Your task to perform on an android device: turn notification dots on Image 0: 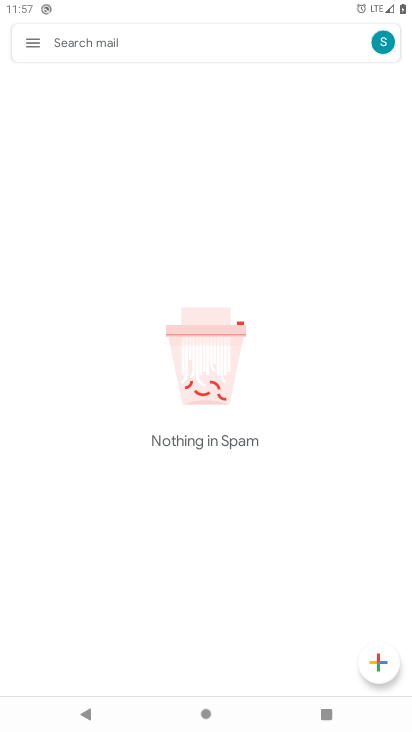
Step 0: press home button
Your task to perform on an android device: turn notification dots on Image 1: 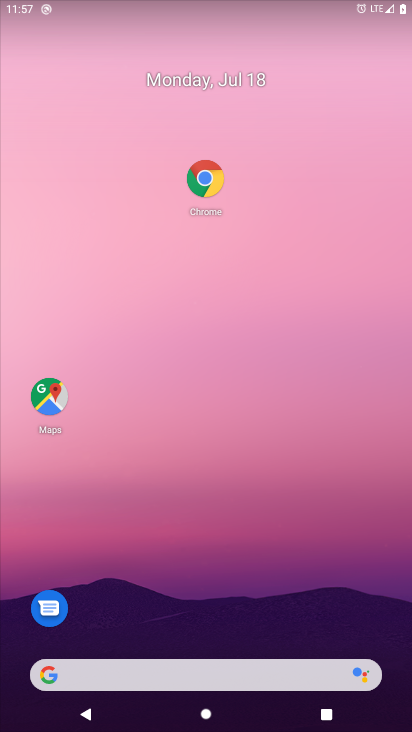
Step 1: drag from (37, 702) to (189, 114)
Your task to perform on an android device: turn notification dots on Image 2: 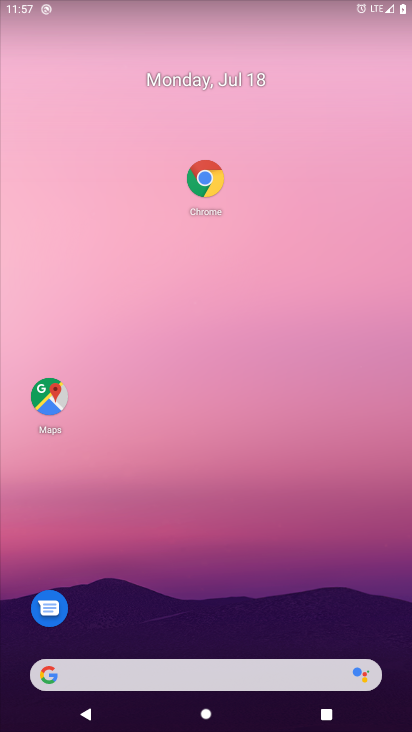
Step 2: drag from (37, 700) to (228, 140)
Your task to perform on an android device: turn notification dots on Image 3: 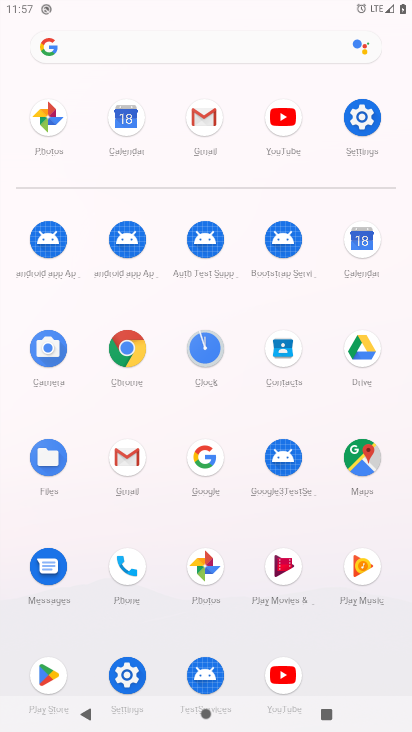
Step 3: click (133, 670)
Your task to perform on an android device: turn notification dots on Image 4: 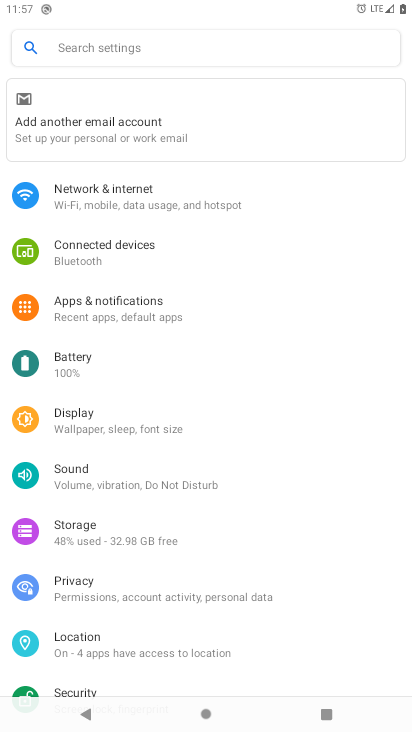
Step 4: click (120, 301)
Your task to perform on an android device: turn notification dots on Image 5: 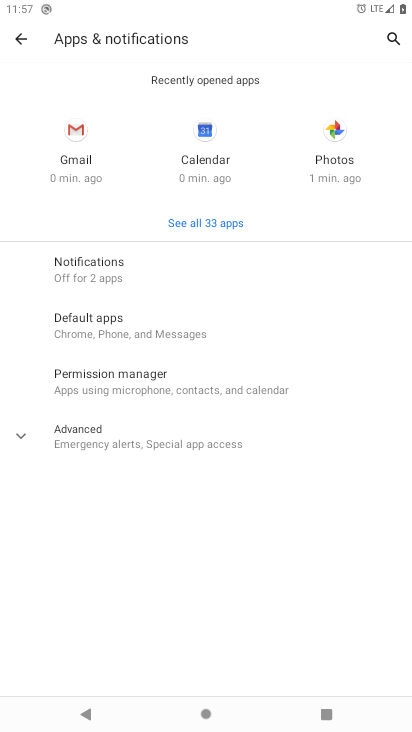
Step 5: click (130, 425)
Your task to perform on an android device: turn notification dots on Image 6: 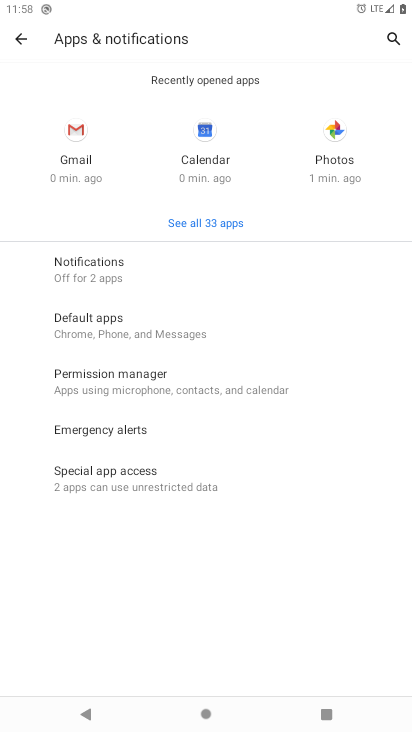
Step 6: click (141, 276)
Your task to perform on an android device: turn notification dots on Image 7: 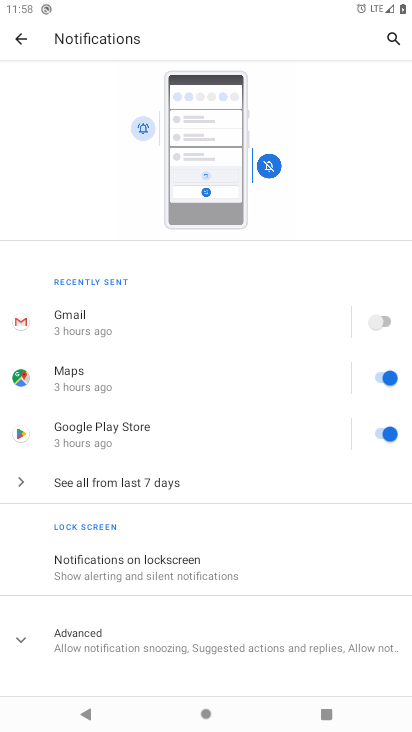
Step 7: drag from (214, 499) to (215, 293)
Your task to perform on an android device: turn notification dots on Image 8: 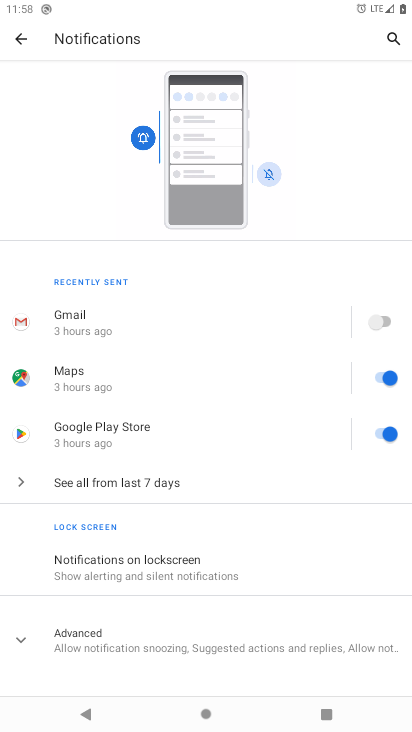
Step 8: click (136, 638)
Your task to perform on an android device: turn notification dots on Image 9: 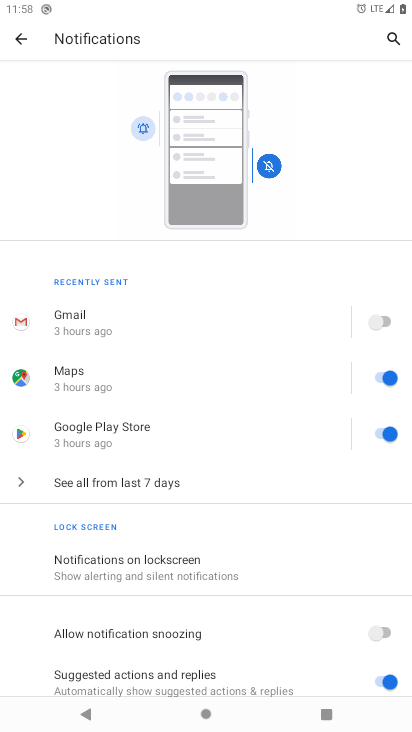
Step 9: task complete